Your task to perform on an android device: Open display settings Image 0: 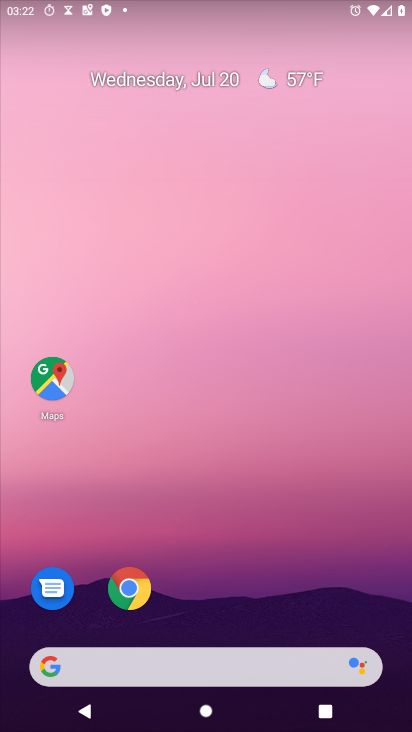
Step 0: drag from (278, 587) to (213, 60)
Your task to perform on an android device: Open display settings Image 1: 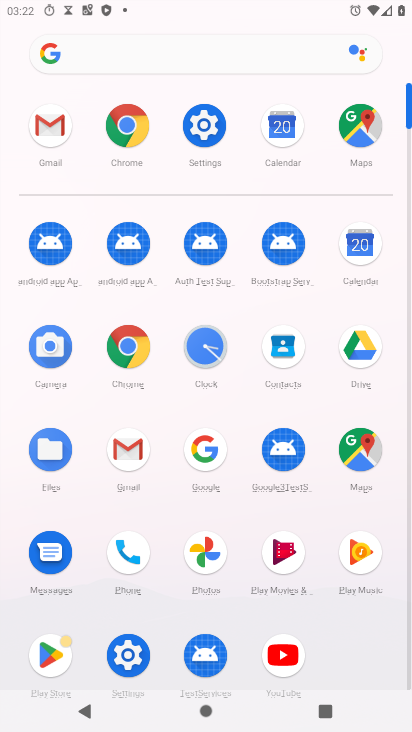
Step 1: click (204, 139)
Your task to perform on an android device: Open display settings Image 2: 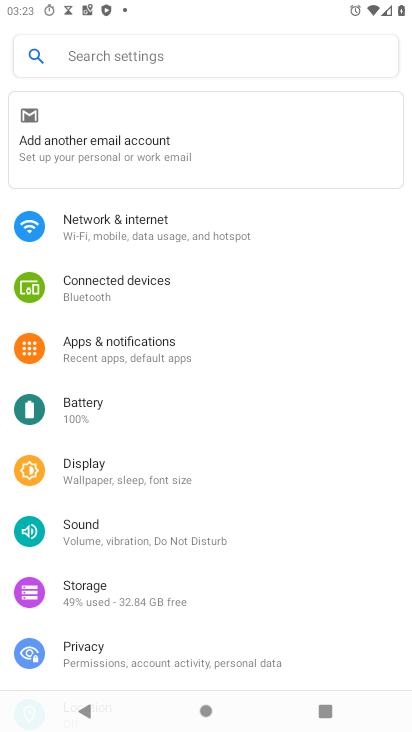
Step 2: click (114, 474)
Your task to perform on an android device: Open display settings Image 3: 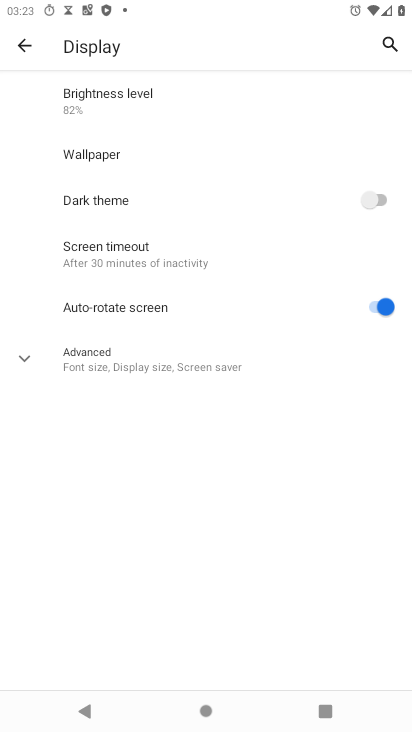
Step 3: task complete